Your task to perform on an android device: Go to wifi settings Image 0: 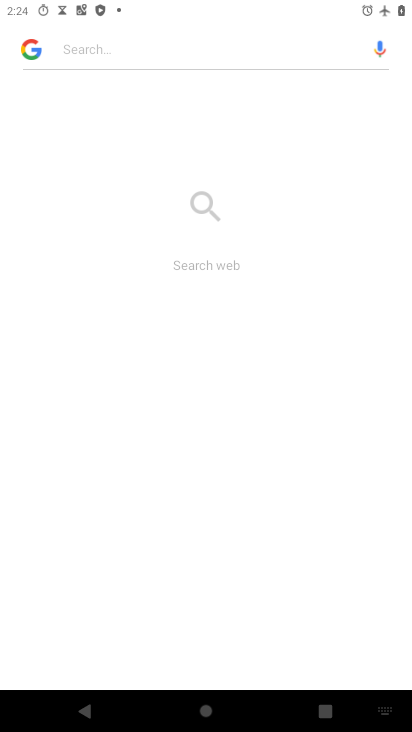
Step 0: press home button
Your task to perform on an android device: Go to wifi settings Image 1: 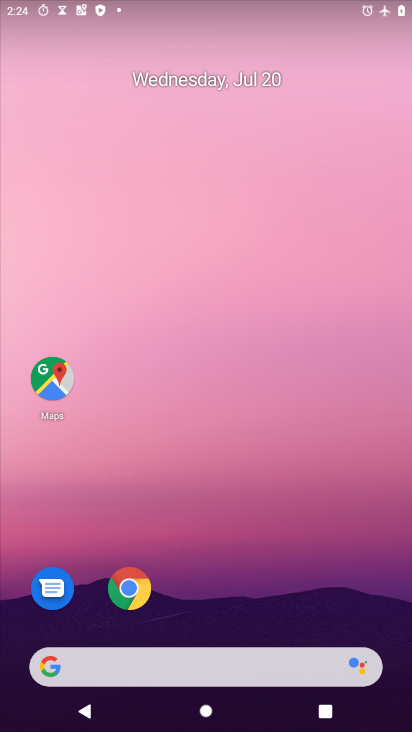
Step 1: drag from (314, 597) to (359, 1)
Your task to perform on an android device: Go to wifi settings Image 2: 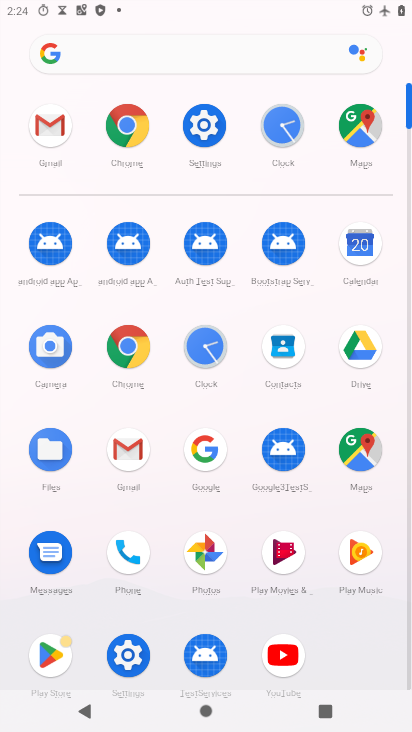
Step 2: click (199, 125)
Your task to perform on an android device: Go to wifi settings Image 3: 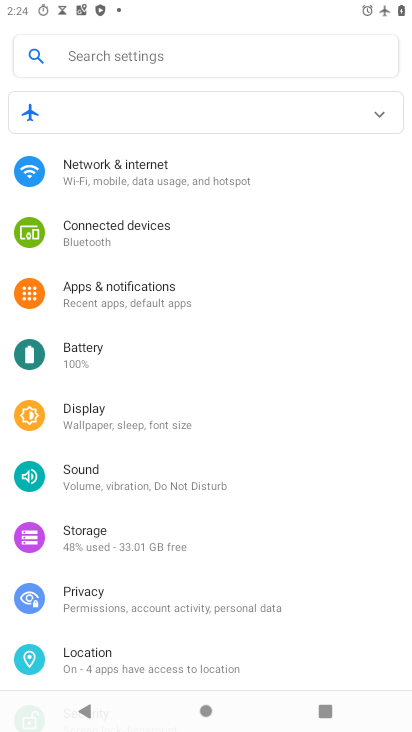
Step 3: click (217, 174)
Your task to perform on an android device: Go to wifi settings Image 4: 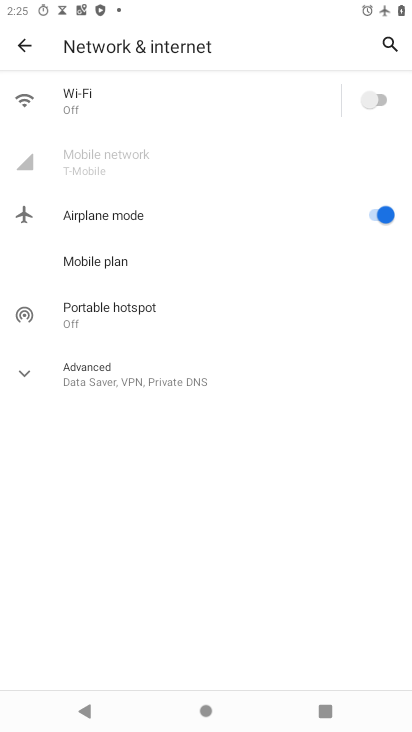
Step 4: click (152, 97)
Your task to perform on an android device: Go to wifi settings Image 5: 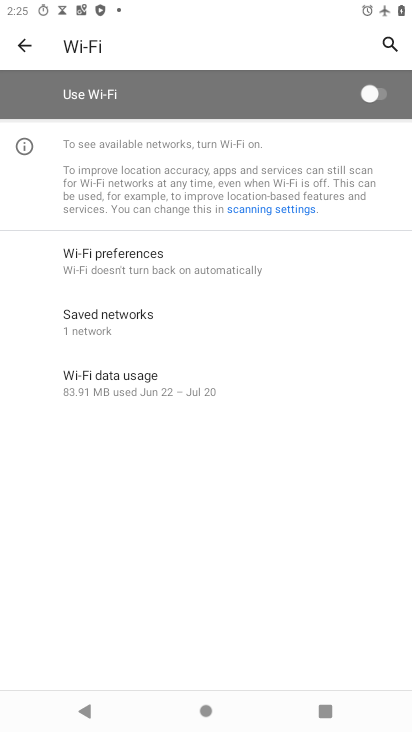
Step 5: task complete